Your task to perform on an android device: open chrome privacy settings Image 0: 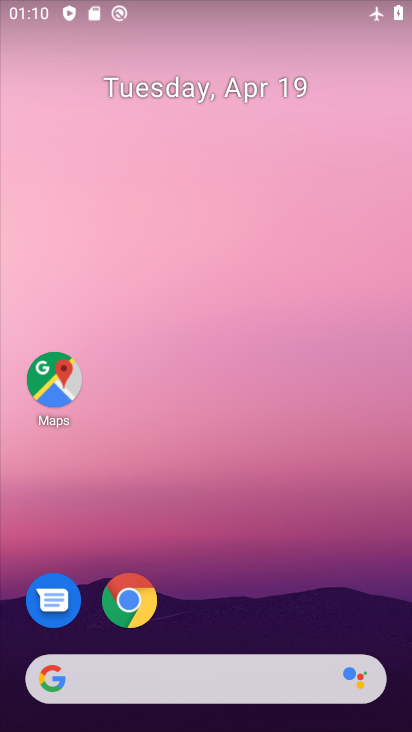
Step 0: drag from (202, 646) to (180, 19)
Your task to perform on an android device: open chrome privacy settings Image 1: 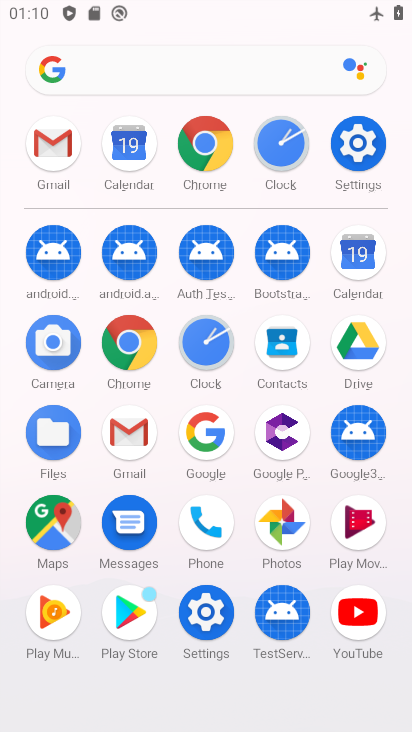
Step 1: click (209, 153)
Your task to perform on an android device: open chrome privacy settings Image 2: 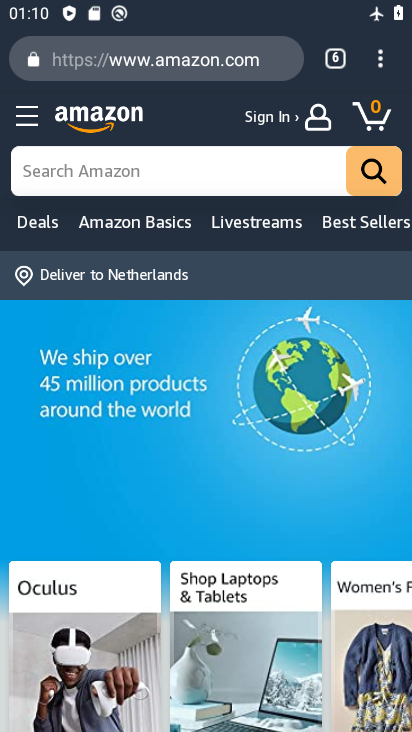
Step 2: click (378, 44)
Your task to perform on an android device: open chrome privacy settings Image 3: 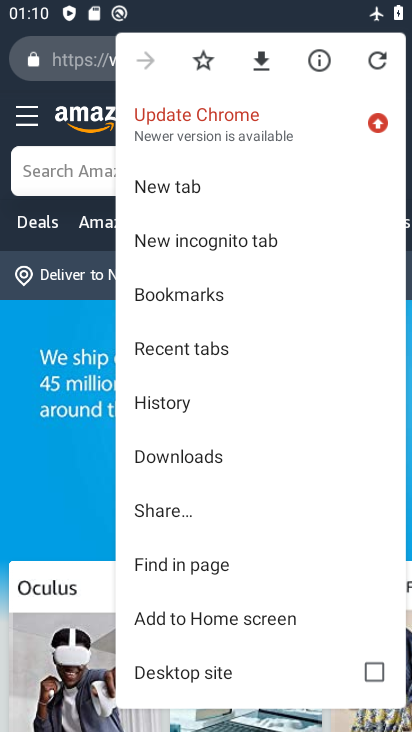
Step 3: drag from (193, 595) to (171, 218)
Your task to perform on an android device: open chrome privacy settings Image 4: 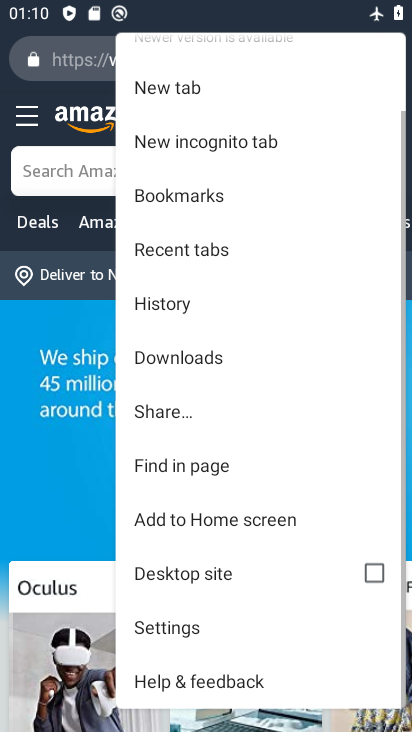
Step 4: click (149, 619)
Your task to perform on an android device: open chrome privacy settings Image 5: 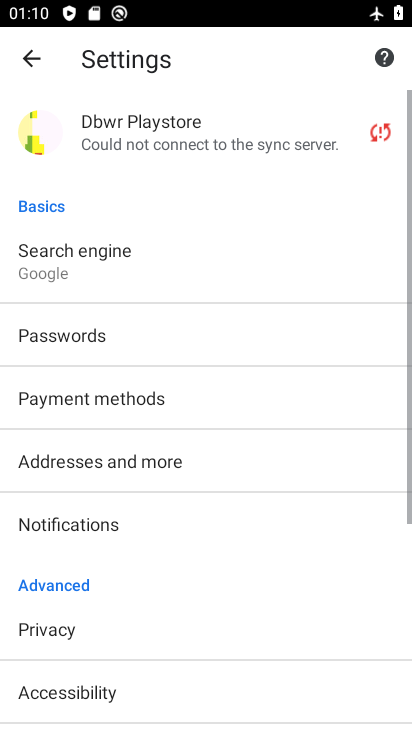
Step 5: click (139, 628)
Your task to perform on an android device: open chrome privacy settings Image 6: 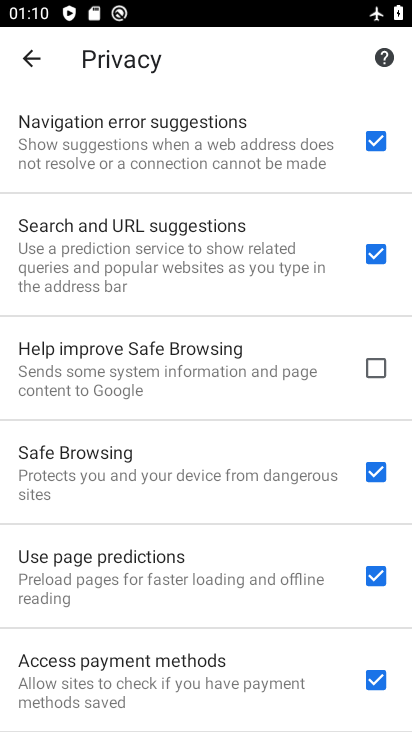
Step 6: task complete